Your task to perform on an android device: Do I have any events tomorrow? Image 0: 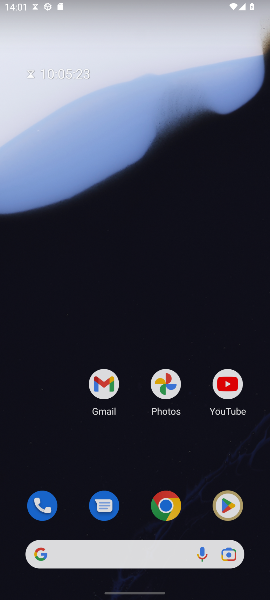
Step 0: press home button
Your task to perform on an android device: Do I have any events tomorrow? Image 1: 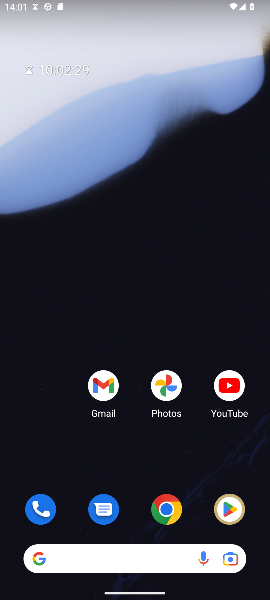
Step 1: drag from (127, 519) to (152, 113)
Your task to perform on an android device: Do I have any events tomorrow? Image 2: 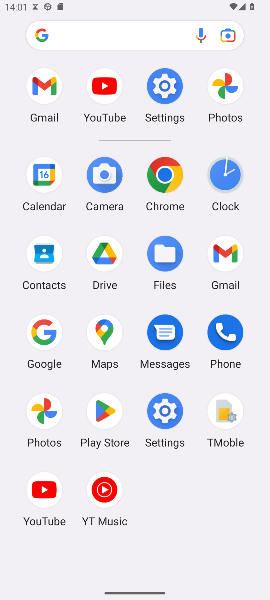
Step 2: click (39, 180)
Your task to perform on an android device: Do I have any events tomorrow? Image 3: 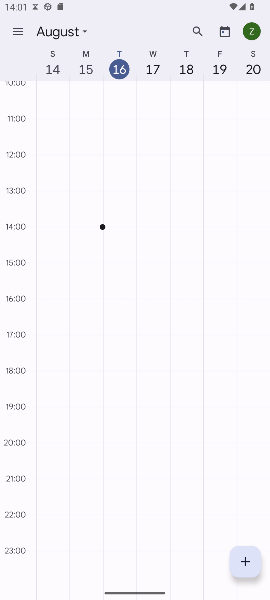
Step 3: click (156, 66)
Your task to perform on an android device: Do I have any events tomorrow? Image 4: 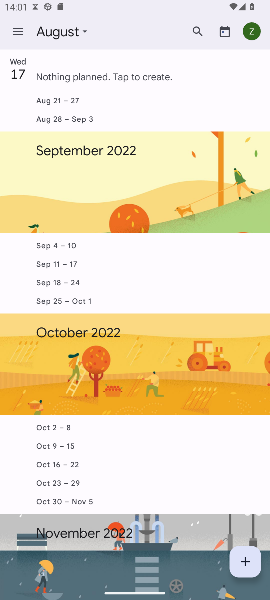
Step 4: task complete